Your task to perform on an android device: Open Yahoo.com Image 0: 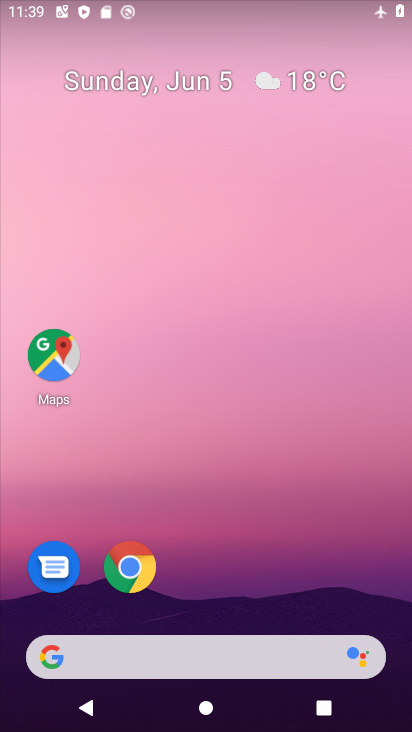
Step 0: click (272, 658)
Your task to perform on an android device: Open Yahoo.com Image 1: 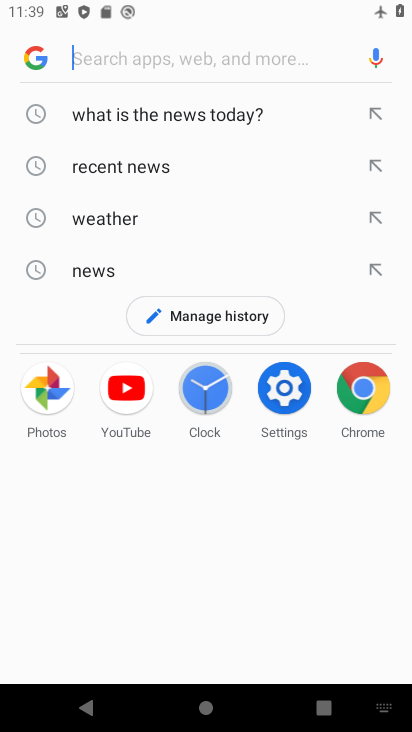
Step 1: type "yahoo.com"
Your task to perform on an android device: Open Yahoo.com Image 2: 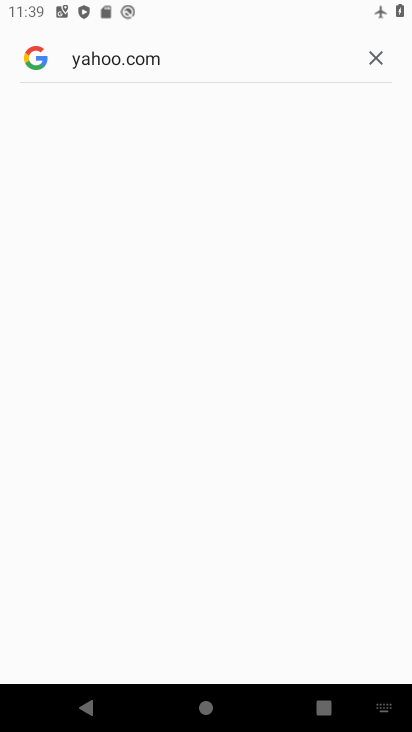
Step 2: task complete